Your task to perform on an android device: find snoozed emails in the gmail app Image 0: 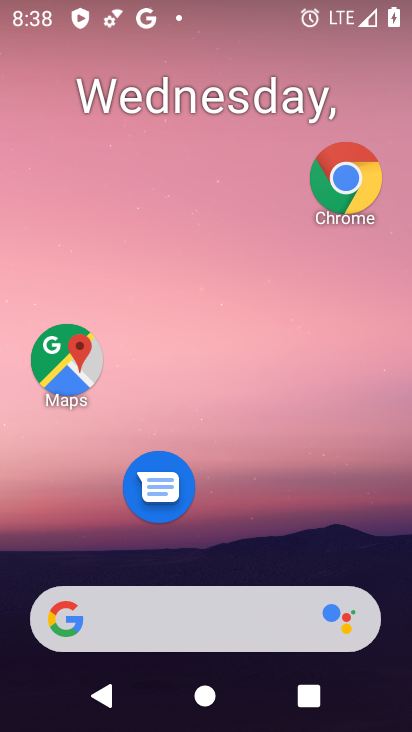
Step 0: drag from (129, 628) to (204, 129)
Your task to perform on an android device: find snoozed emails in the gmail app Image 1: 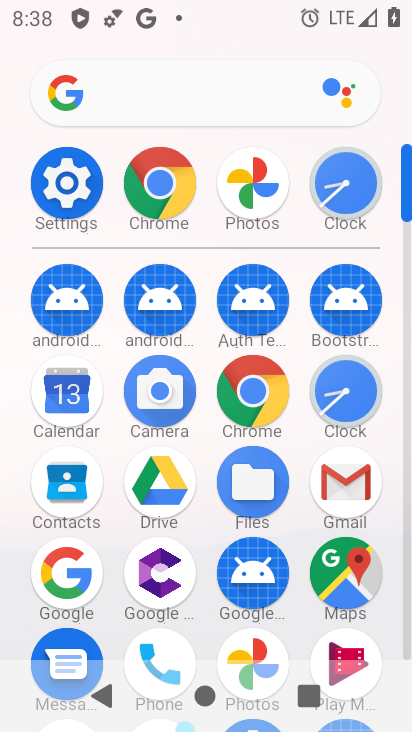
Step 1: click (366, 498)
Your task to perform on an android device: find snoozed emails in the gmail app Image 2: 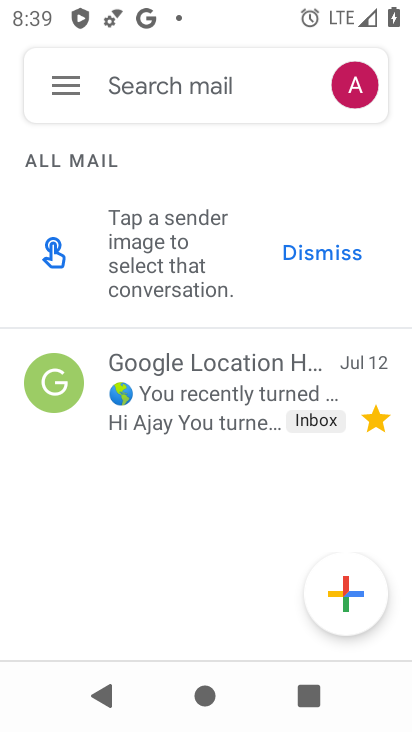
Step 2: click (68, 85)
Your task to perform on an android device: find snoozed emails in the gmail app Image 3: 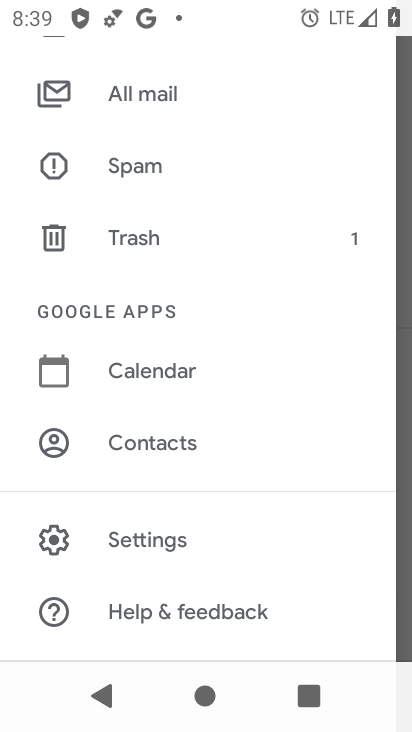
Step 3: drag from (125, 457) to (135, 615)
Your task to perform on an android device: find snoozed emails in the gmail app Image 4: 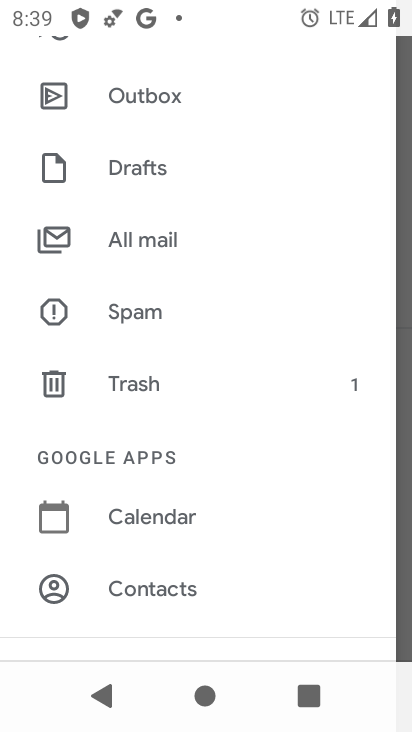
Step 4: drag from (202, 182) to (158, 563)
Your task to perform on an android device: find snoozed emails in the gmail app Image 5: 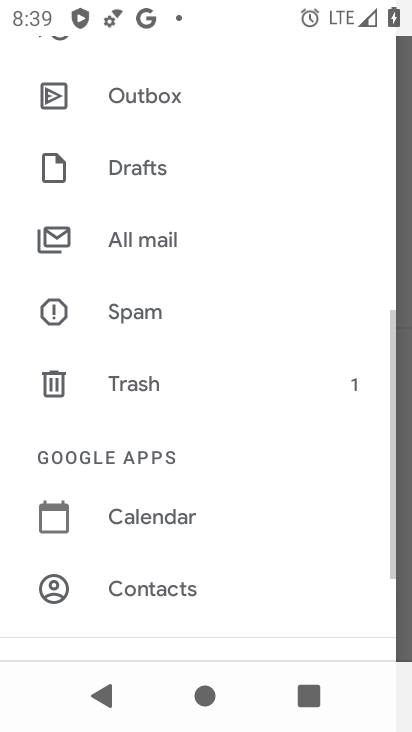
Step 5: drag from (156, 311) to (189, 627)
Your task to perform on an android device: find snoozed emails in the gmail app Image 6: 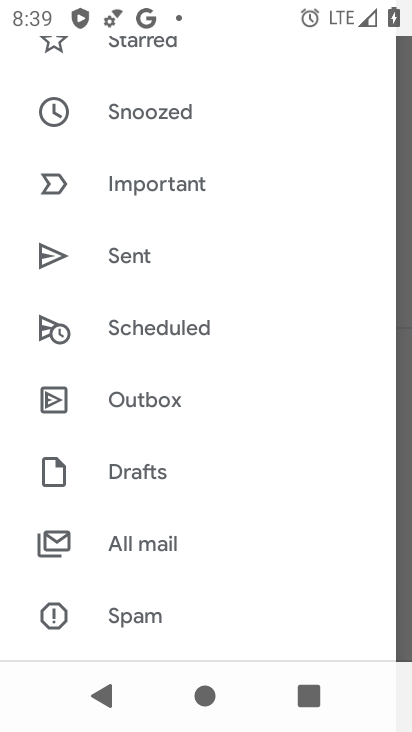
Step 6: click (161, 120)
Your task to perform on an android device: find snoozed emails in the gmail app Image 7: 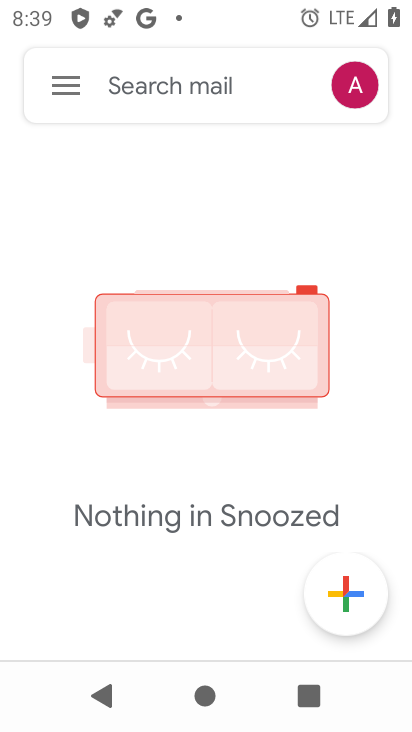
Step 7: task complete